Your task to perform on an android device: check android version Image 0: 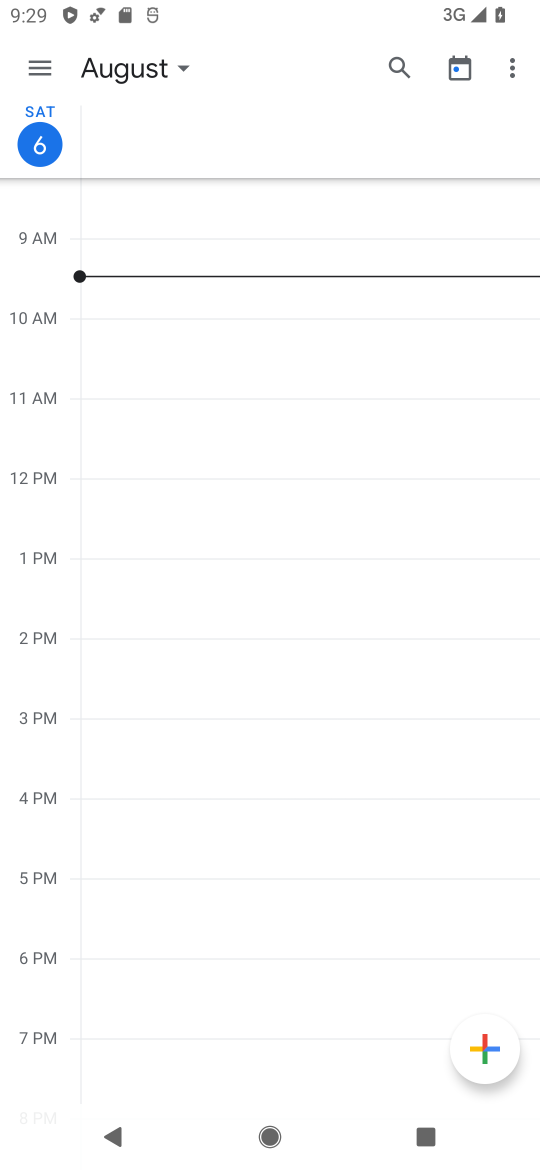
Step 0: press home button
Your task to perform on an android device: check android version Image 1: 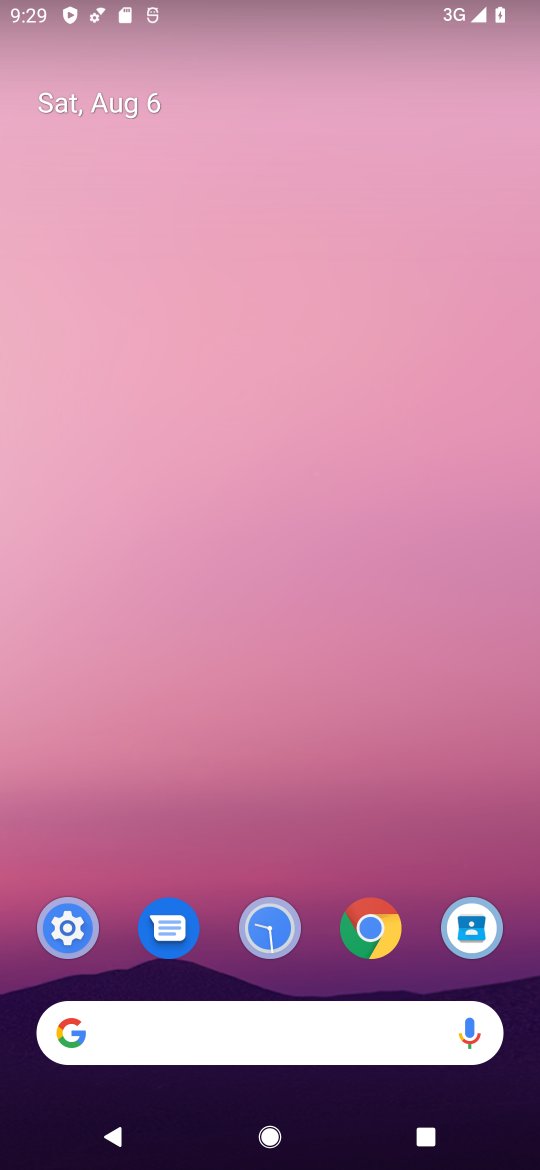
Step 1: drag from (292, 807) to (247, 176)
Your task to perform on an android device: check android version Image 2: 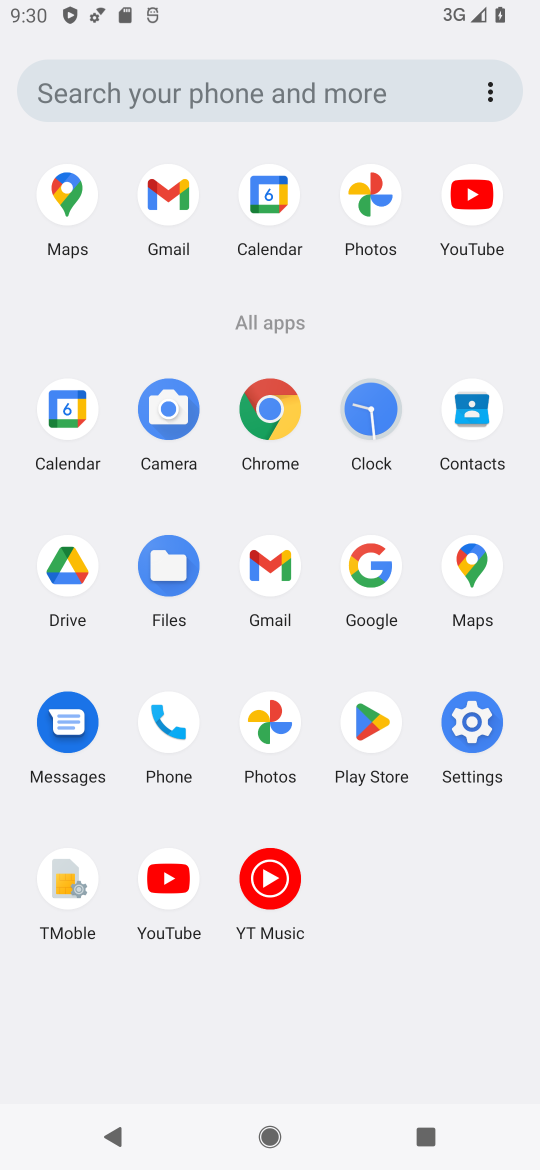
Step 2: click (471, 718)
Your task to perform on an android device: check android version Image 3: 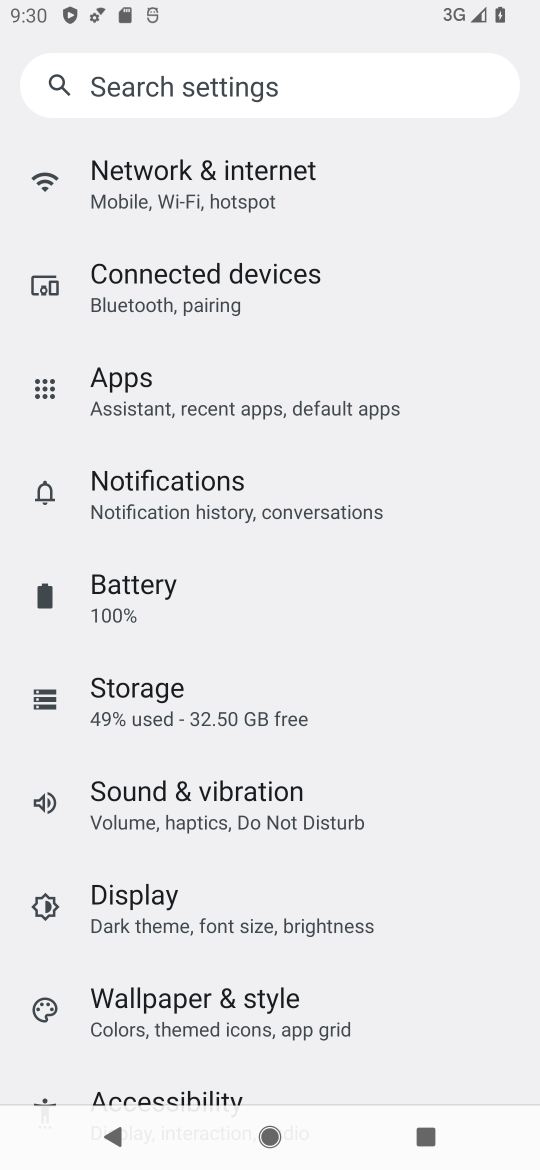
Step 3: drag from (327, 1033) to (322, 457)
Your task to perform on an android device: check android version Image 4: 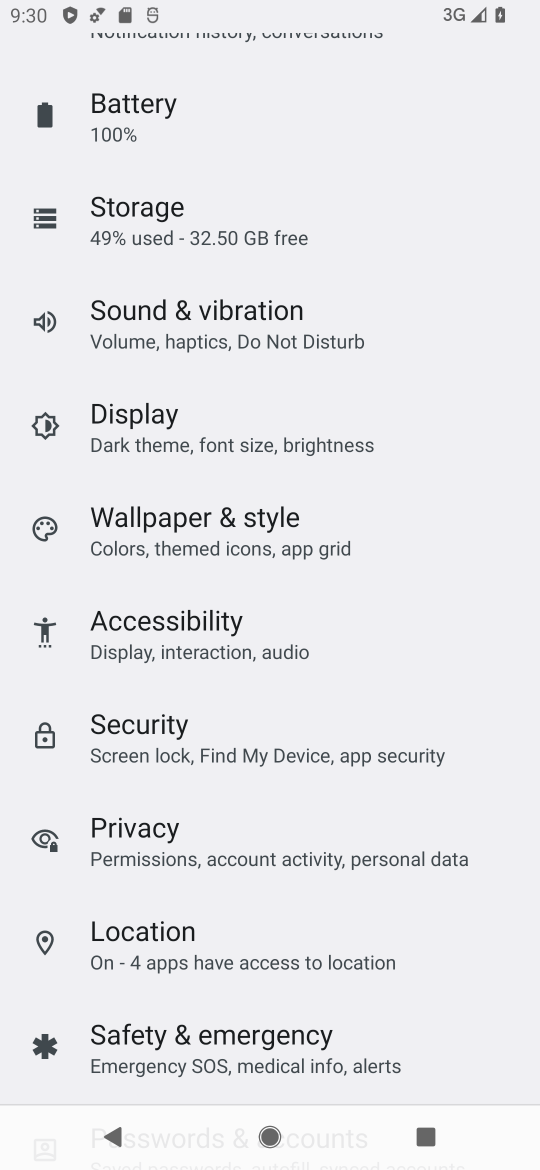
Step 4: drag from (263, 988) to (252, 536)
Your task to perform on an android device: check android version Image 5: 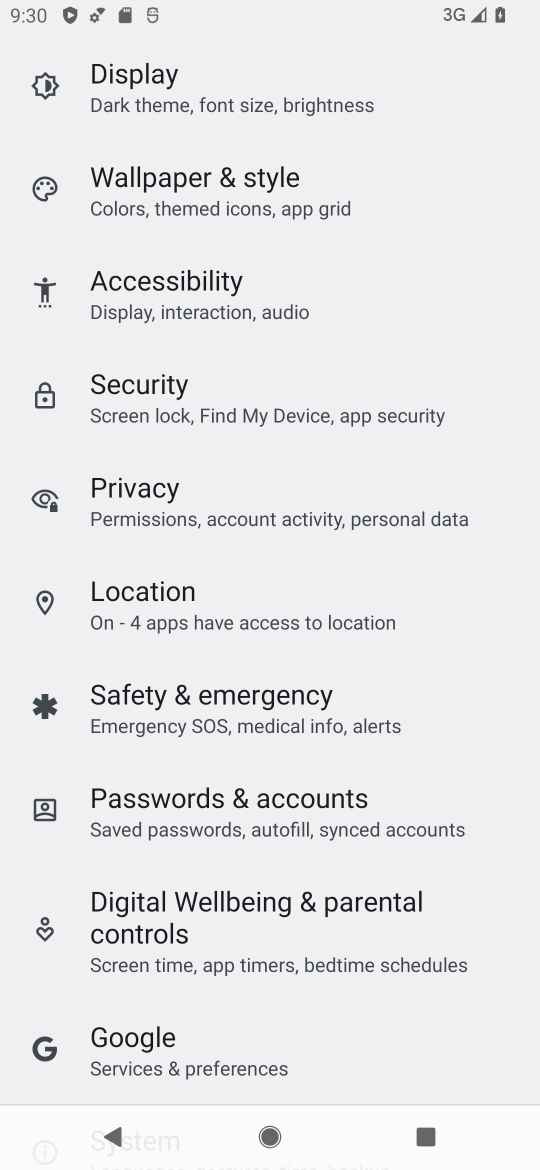
Step 5: drag from (299, 998) to (196, 326)
Your task to perform on an android device: check android version Image 6: 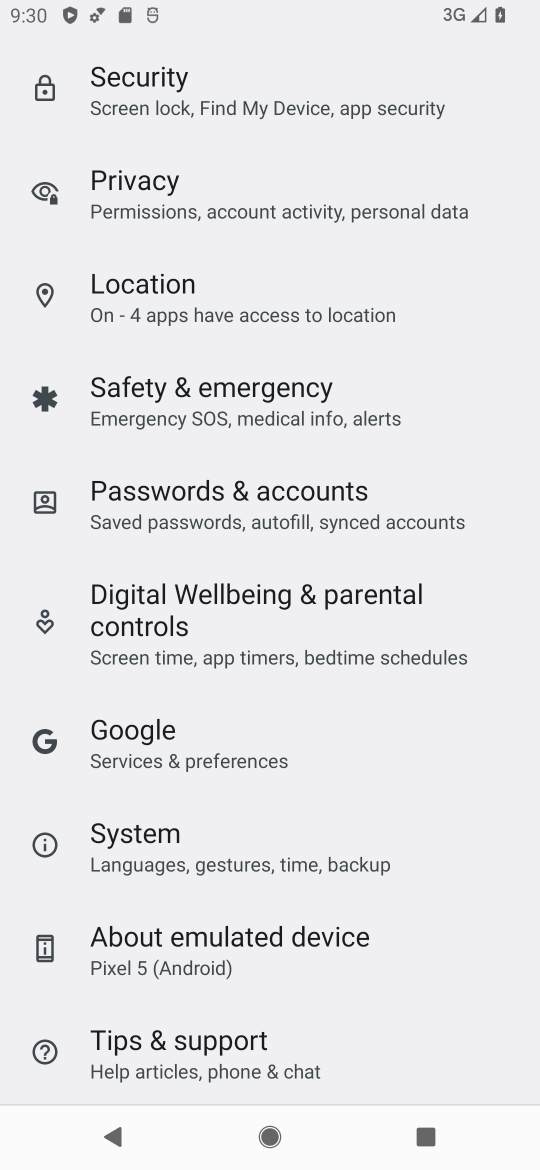
Step 6: click (201, 938)
Your task to perform on an android device: check android version Image 7: 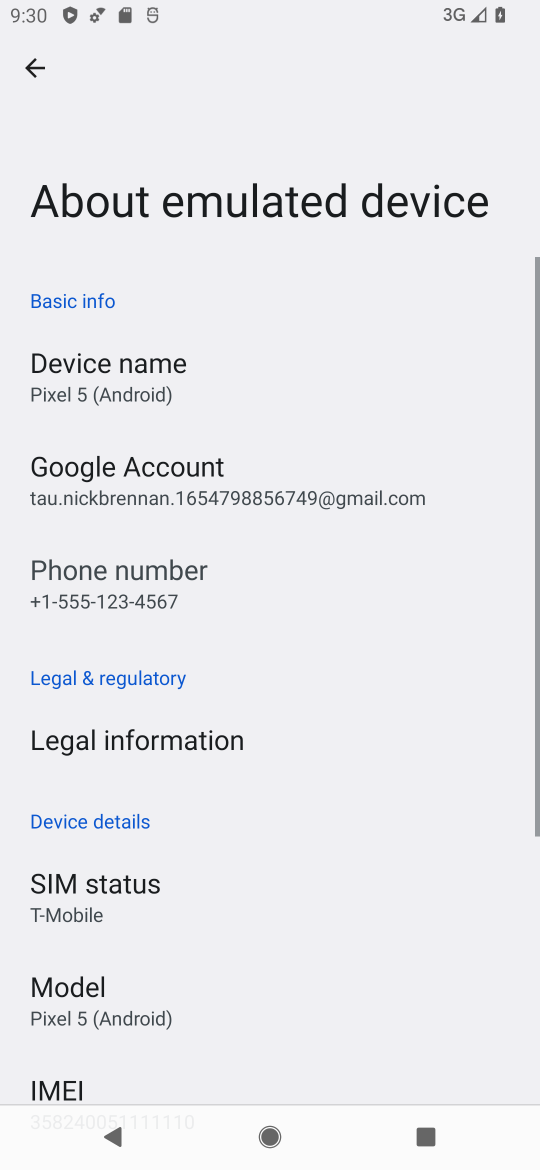
Step 7: task complete